Your task to perform on an android device: turn off airplane mode Image 0: 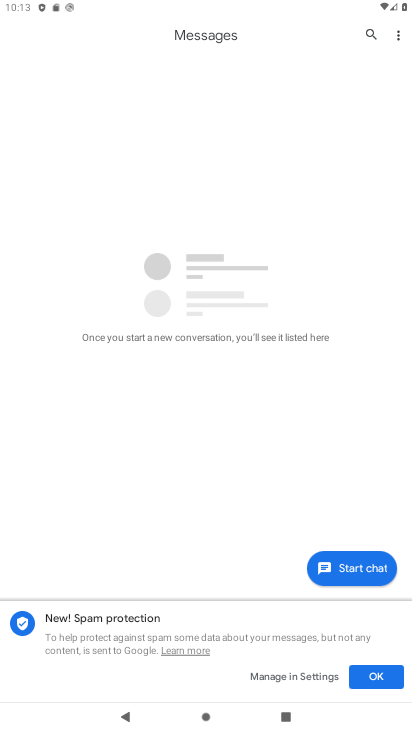
Step 0: press home button
Your task to perform on an android device: turn off airplane mode Image 1: 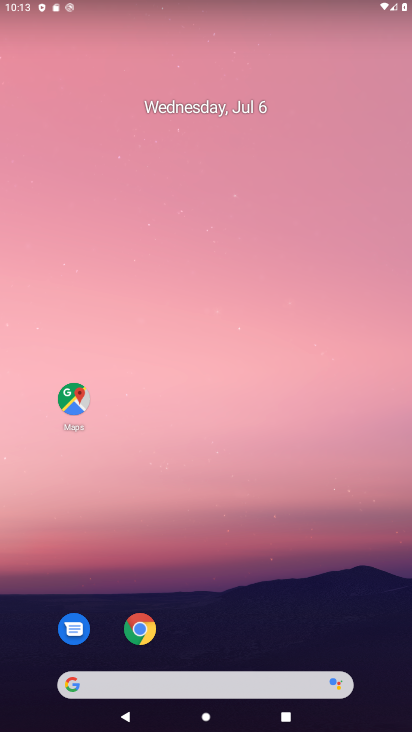
Step 1: task complete